Your task to perform on an android device: toggle translation in the chrome app Image 0: 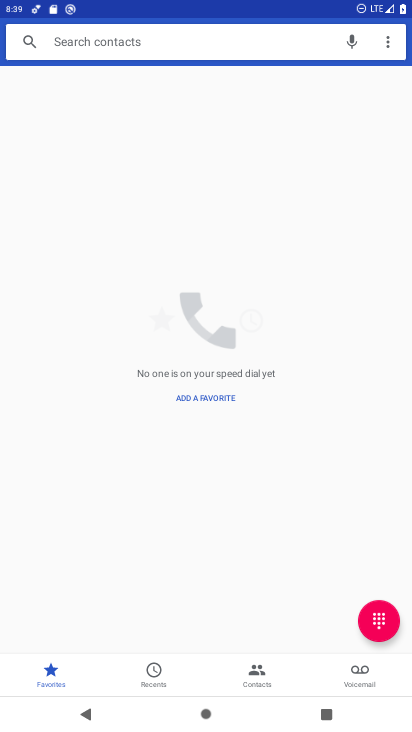
Step 0: press home button
Your task to perform on an android device: toggle translation in the chrome app Image 1: 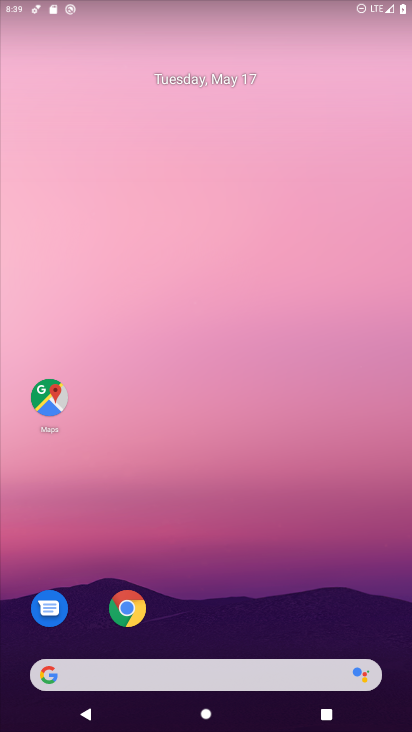
Step 1: click (132, 603)
Your task to perform on an android device: toggle translation in the chrome app Image 2: 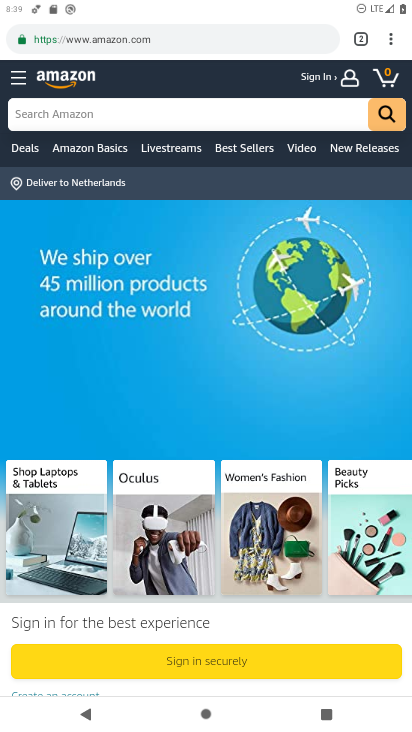
Step 2: click (388, 46)
Your task to perform on an android device: toggle translation in the chrome app Image 3: 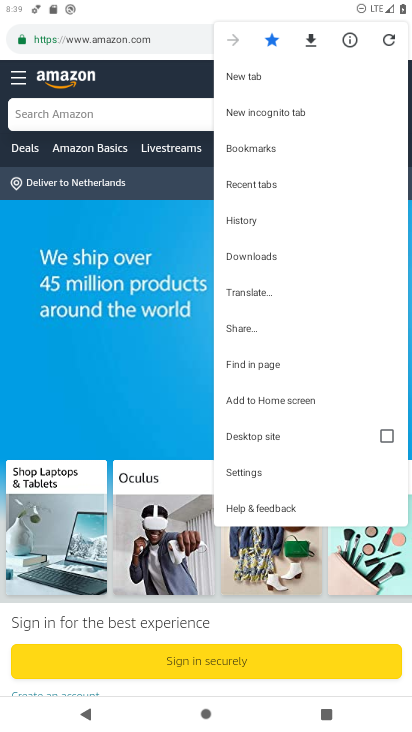
Step 3: click (256, 469)
Your task to perform on an android device: toggle translation in the chrome app Image 4: 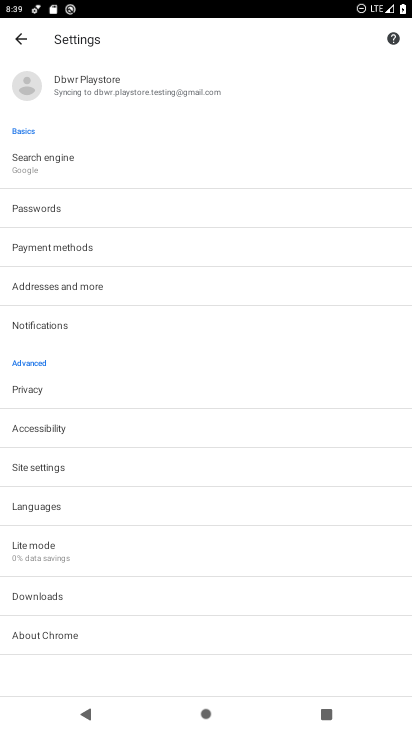
Step 4: click (52, 499)
Your task to perform on an android device: toggle translation in the chrome app Image 5: 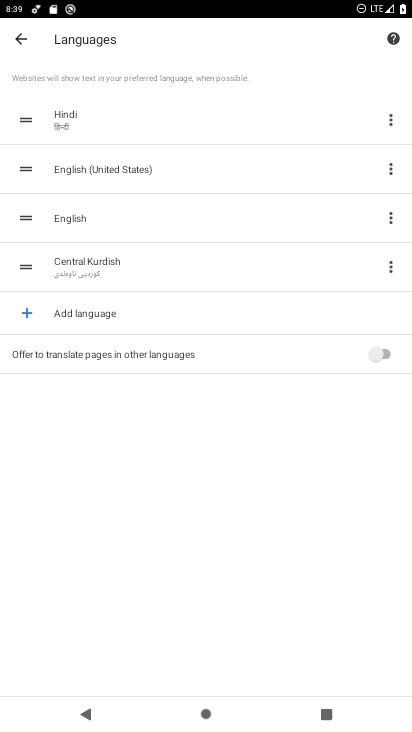
Step 5: click (394, 356)
Your task to perform on an android device: toggle translation in the chrome app Image 6: 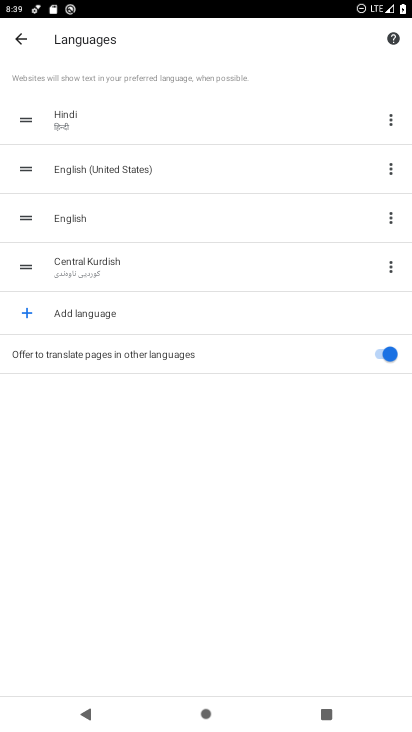
Step 6: task complete